Your task to perform on an android device: Open Chrome and go to the settings page Image 0: 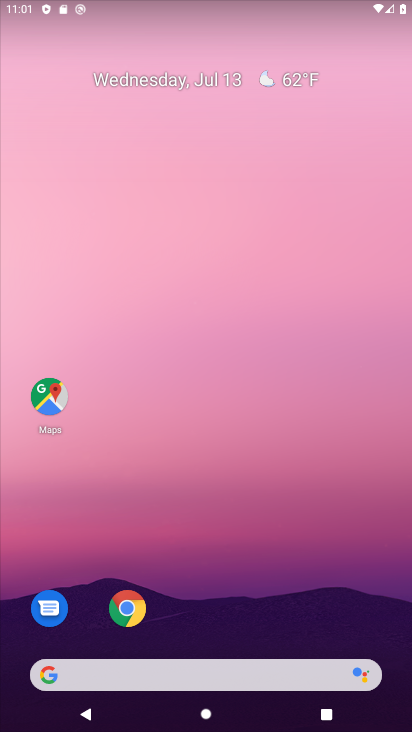
Step 0: click (127, 621)
Your task to perform on an android device: Open Chrome and go to the settings page Image 1: 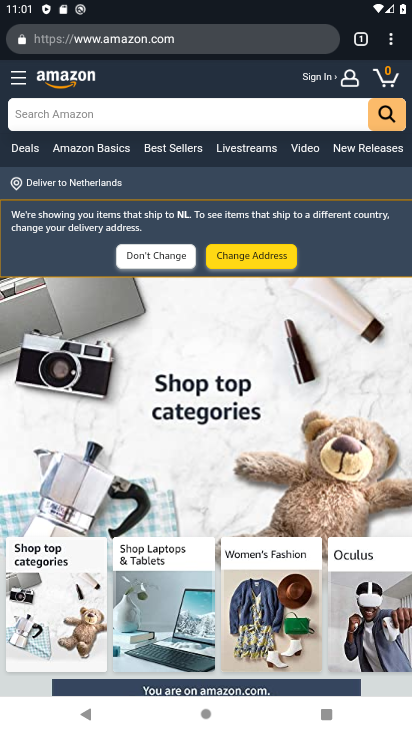
Step 1: click (392, 47)
Your task to perform on an android device: Open Chrome and go to the settings page Image 2: 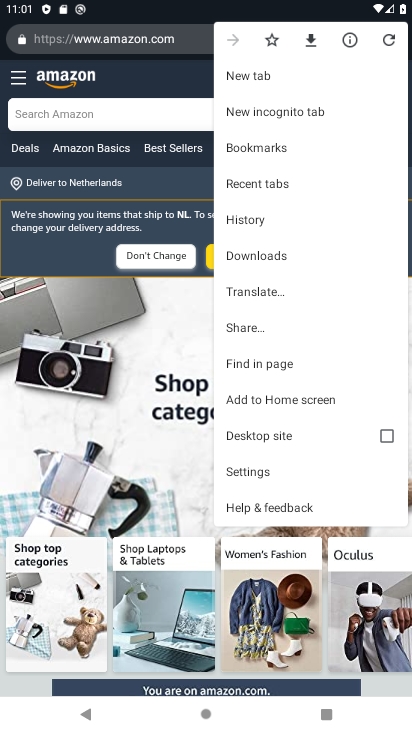
Step 2: click (260, 468)
Your task to perform on an android device: Open Chrome and go to the settings page Image 3: 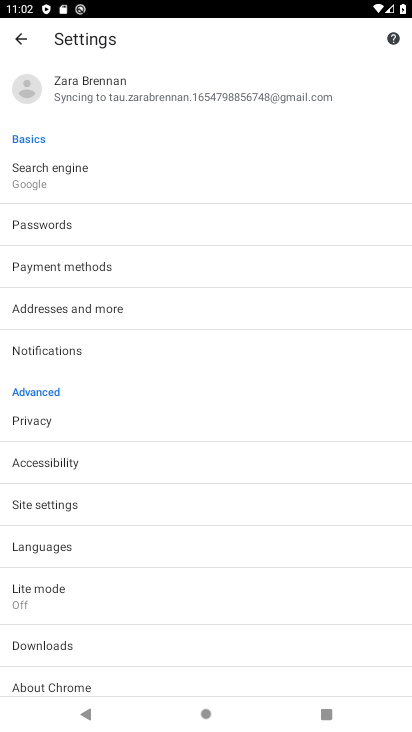
Step 3: task complete